Your task to perform on an android device: find snoozed emails in the gmail app Image 0: 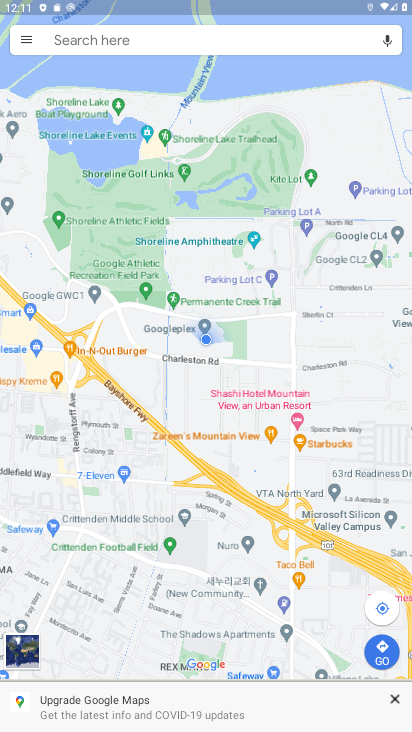
Step 0: task complete